Your task to perform on an android device: turn pop-ups off in chrome Image 0: 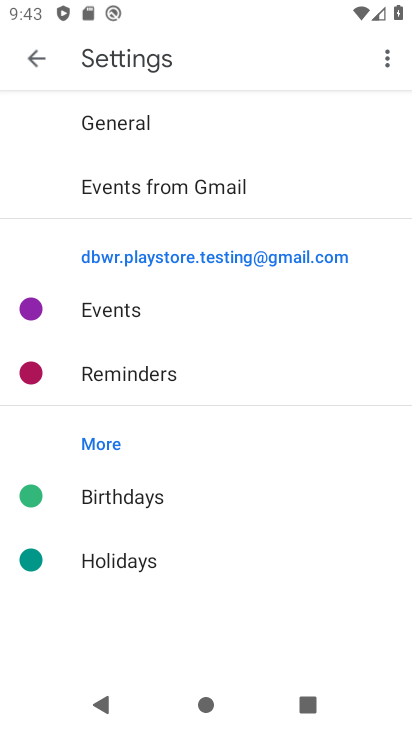
Step 0: press home button
Your task to perform on an android device: turn pop-ups off in chrome Image 1: 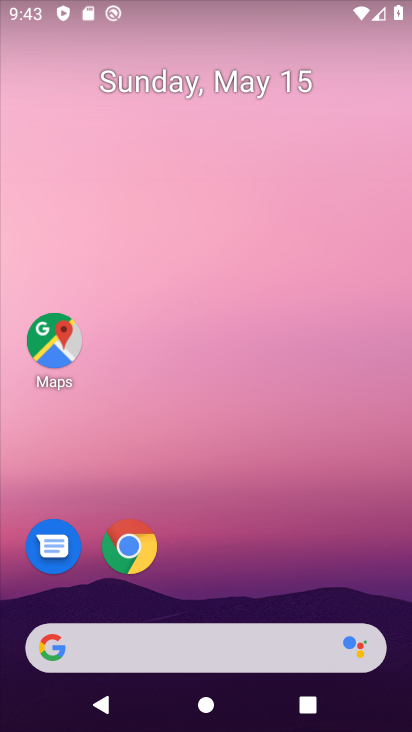
Step 1: click (121, 543)
Your task to perform on an android device: turn pop-ups off in chrome Image 2: 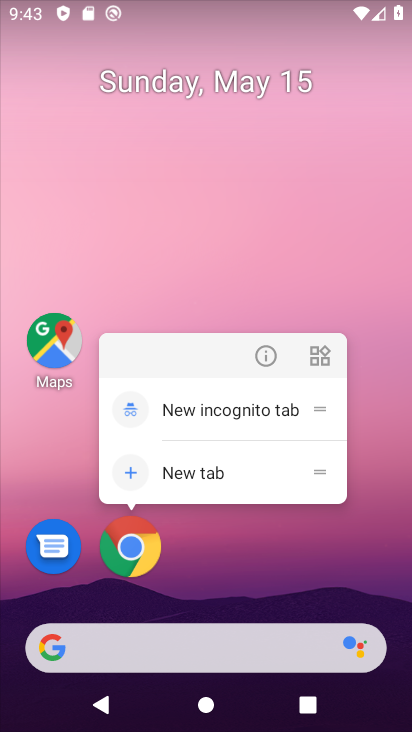
Step 2: click (128, 542)
Your task to perform on an android device: turn pop-ups off in chrome Image 3: 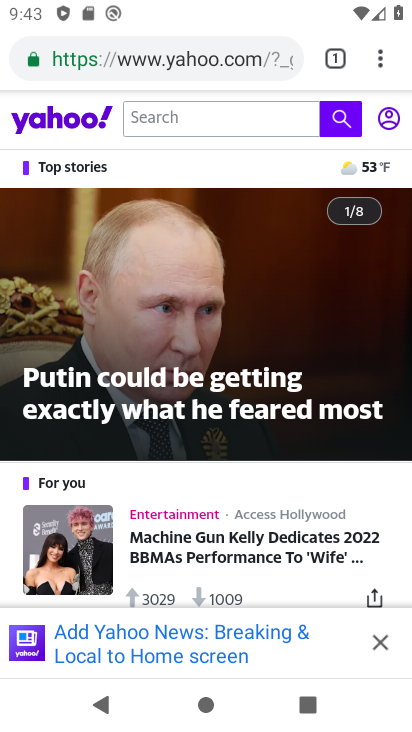
Step 3: drag from (393, 49) to (204, 570)
Your task to perform on an android device: turn pop-ups off in chrome Image 4: 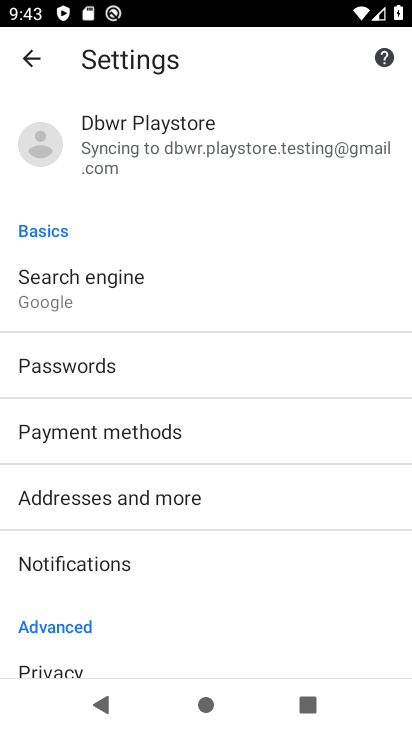
Step 4: drag from (219, 487) to (266, 27)
Your task to perform on an android device: turn pop-ups off in chrome Image 5: 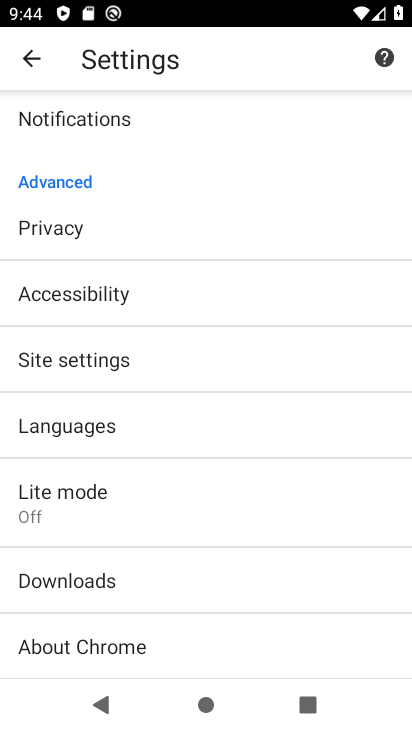
Step 5: click (127, 360)
Your task to perform on an android device: turn pop-ups off in chrome Image 6: 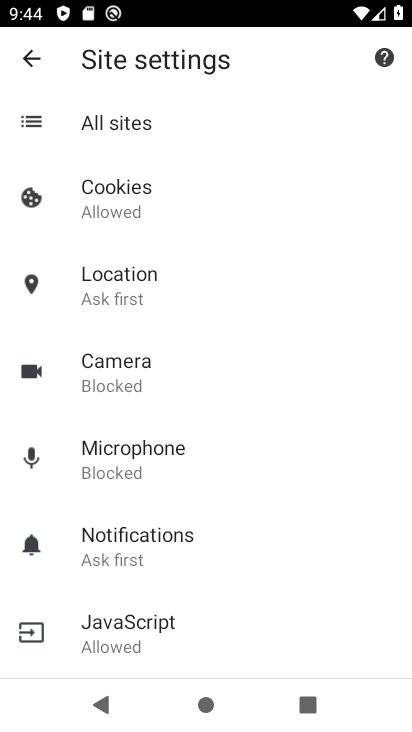
Step 6: drag from (155, 550) to (230, 211)
Your task to perform on an android device: turn pop-ups off in chrome Image 7: 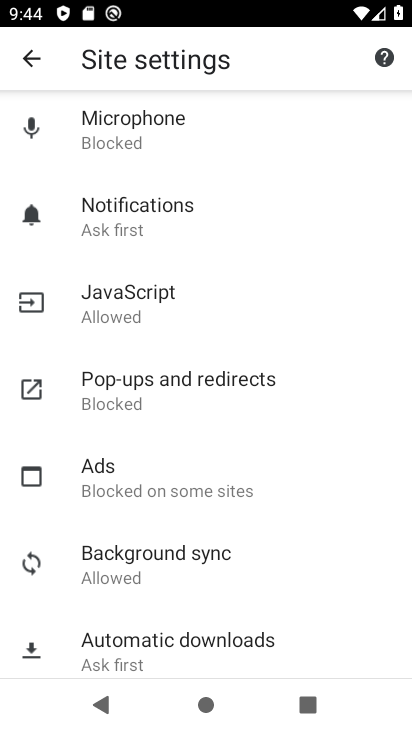
Step 7: click (134, 376)
Your task to perform on an android device: turn pop-ups off in chrome Image 8: 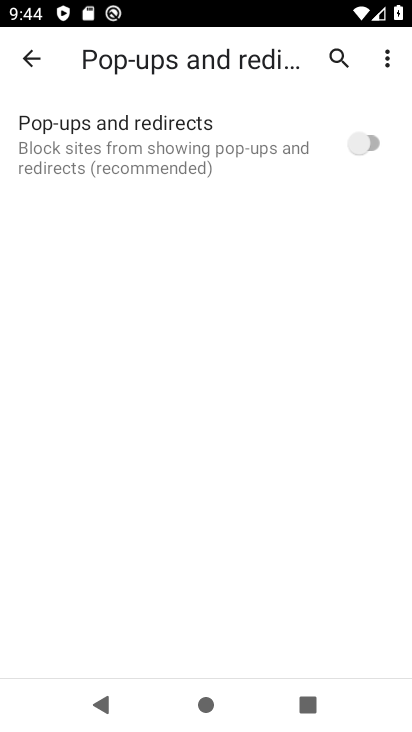
Step 8: task complete